Your task to perform on an android device: star an email in the gmail app Image 0: 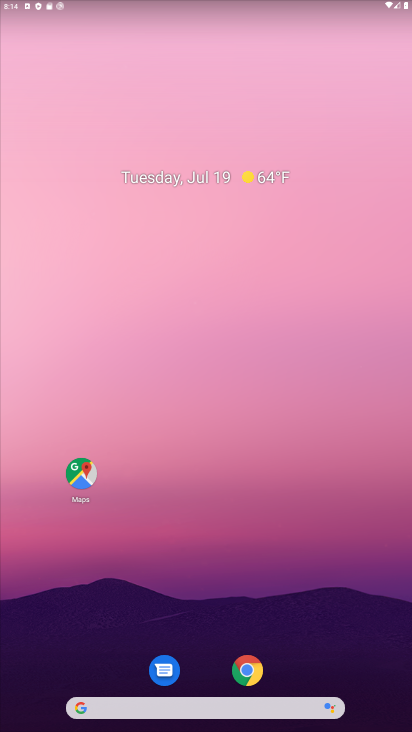
Step 0: click (259, 154)
Your task to perform on an android device: star an email in the gmail app Image 1: 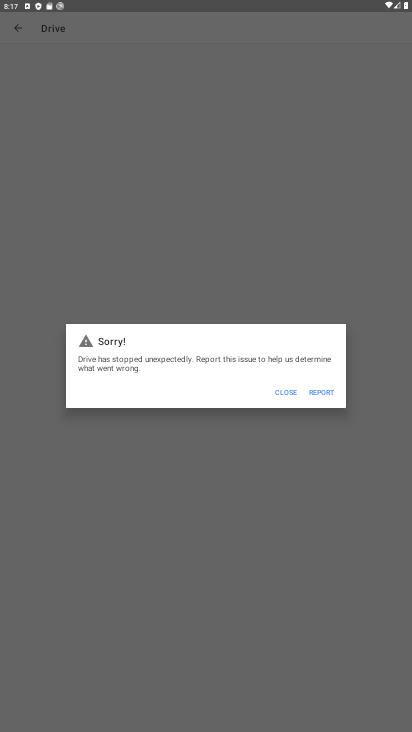
Step 1: press home button
Your task to perform on an android device: star an email in the gmail app Image 2: 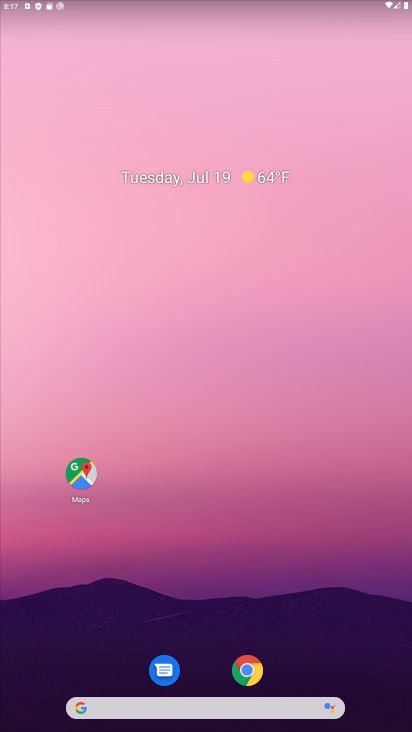
Step 2: drag from (251, 724) to (337, 33)
Your task to perform on an android device: star an email in the gmail app Image 3: 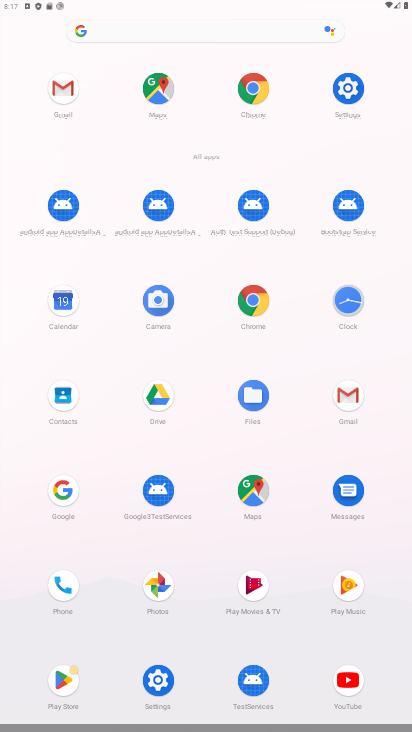
Step 3: click (352, 403)
Your task to perform on an android device: star an email in the gmail app Image 4: 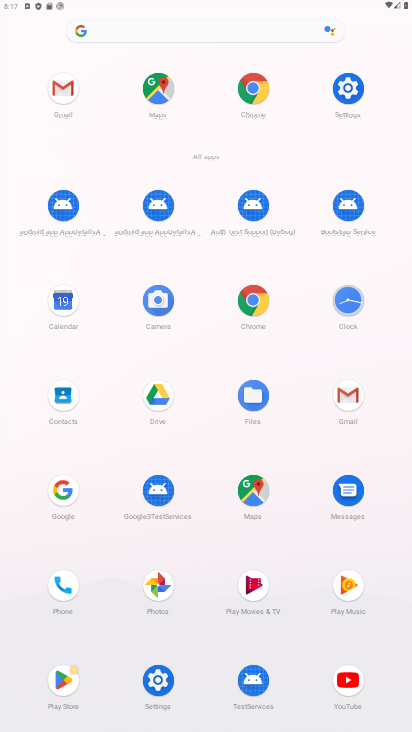
Step 4: click (352, 403)
Your task to perform on an android device: star an email in the gmail app Image 5: 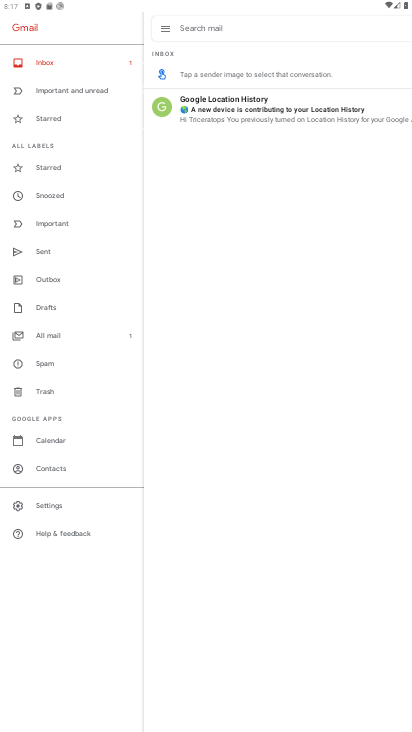
Step 5: click (268, 116)
Your task to perform on an android device: star an email in the gmail app Image 6: 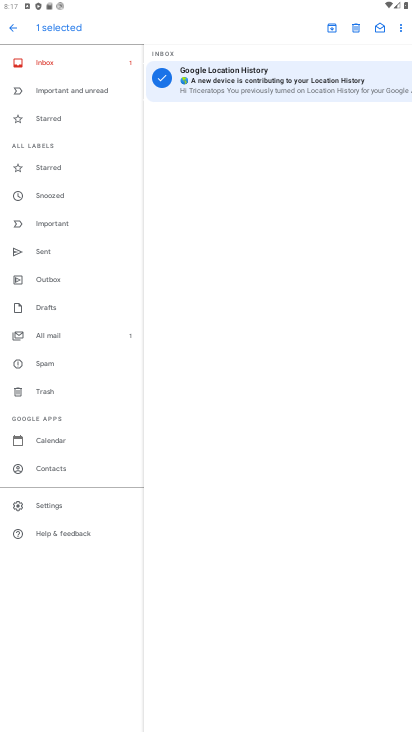
Step 6: click (404, 23)
Your task to perform on an android device: star an email in the gmail app Image 7: 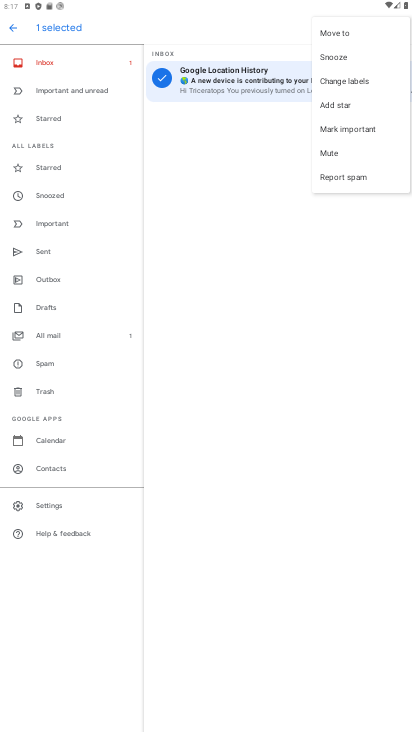
Step 7: click (352, 101)
Your task to perform on an android device: star an email in the gmail app Image 8: 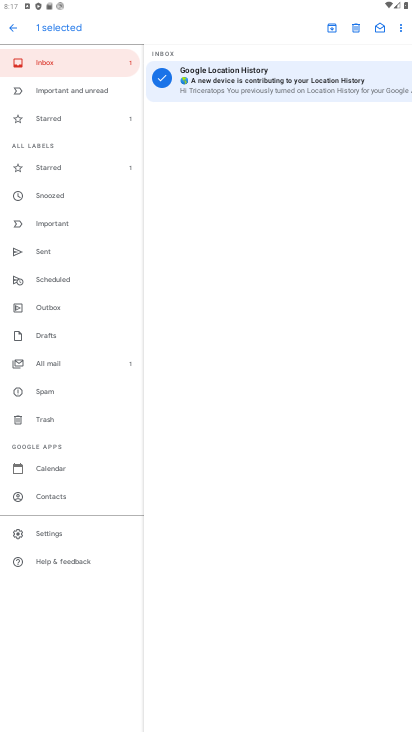
Step 8: task complete